Your task to perform on an android device: Empty the shopping cart on target. Add "bose quietcomfort 35" to the cart on target Image 0: 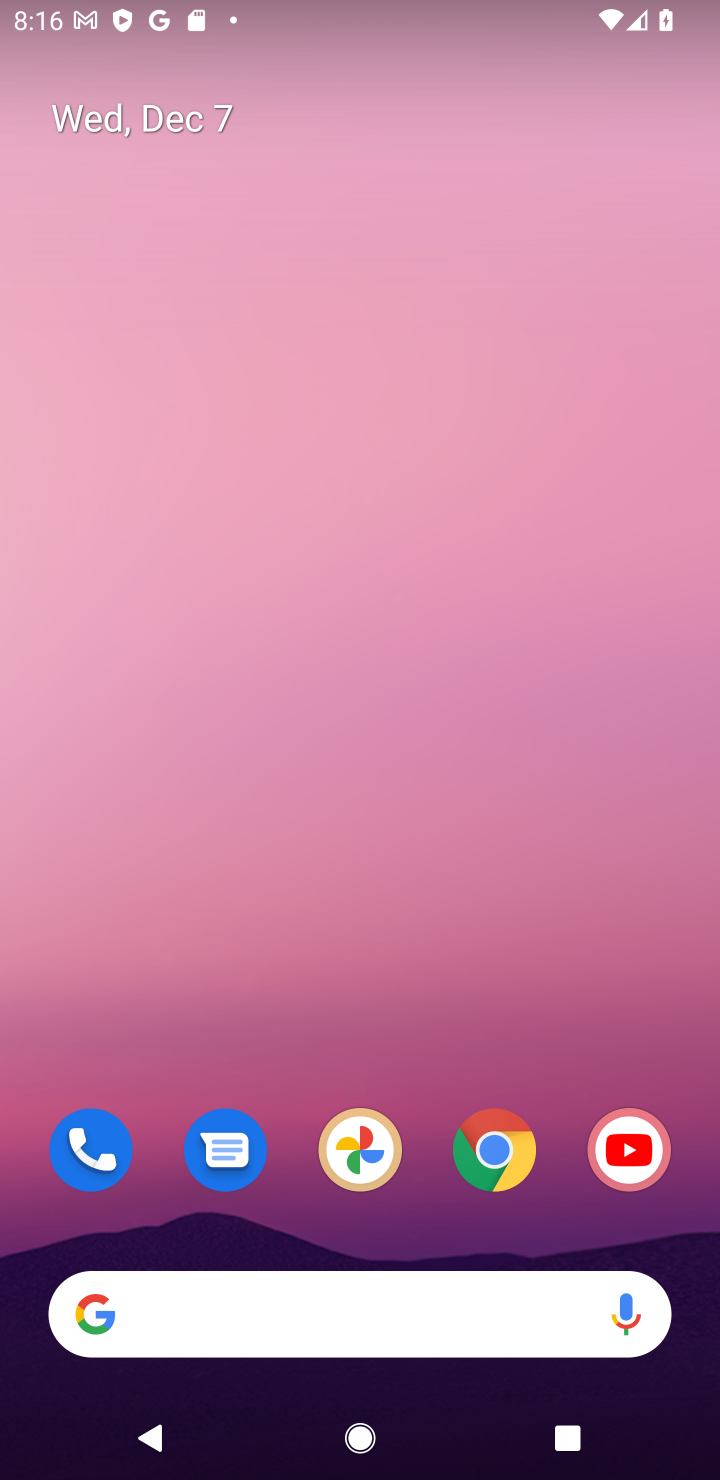
Step 0: click (502, 1148)
Your task to perform on an android device: Empty the shopping cart on target. Add "bose quietcomfort 35" to the cart on target Image 1: 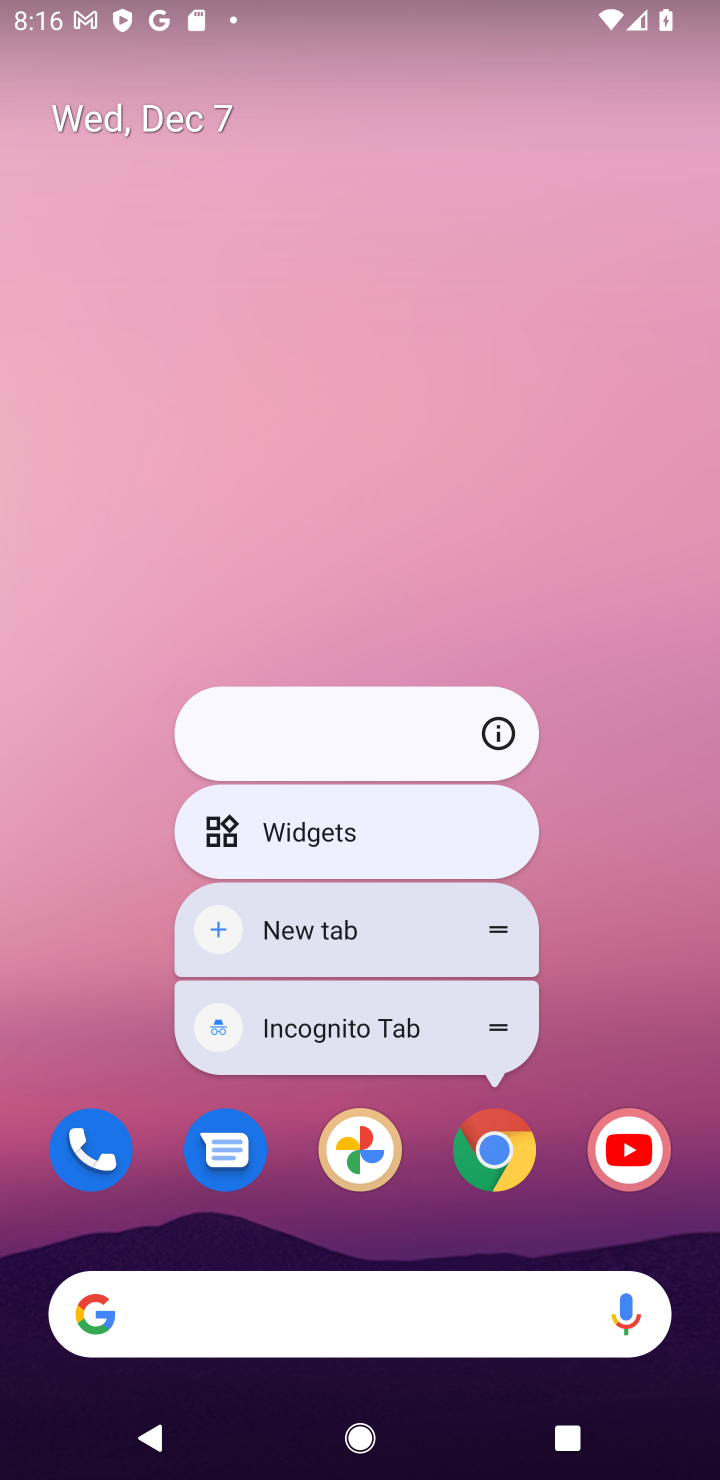
Step 1: click (502, 1148)
Your task to perform on an android device: Empty the shopping cart on target. Add "bose quietcomfort 35" to the cart on target Image 2: 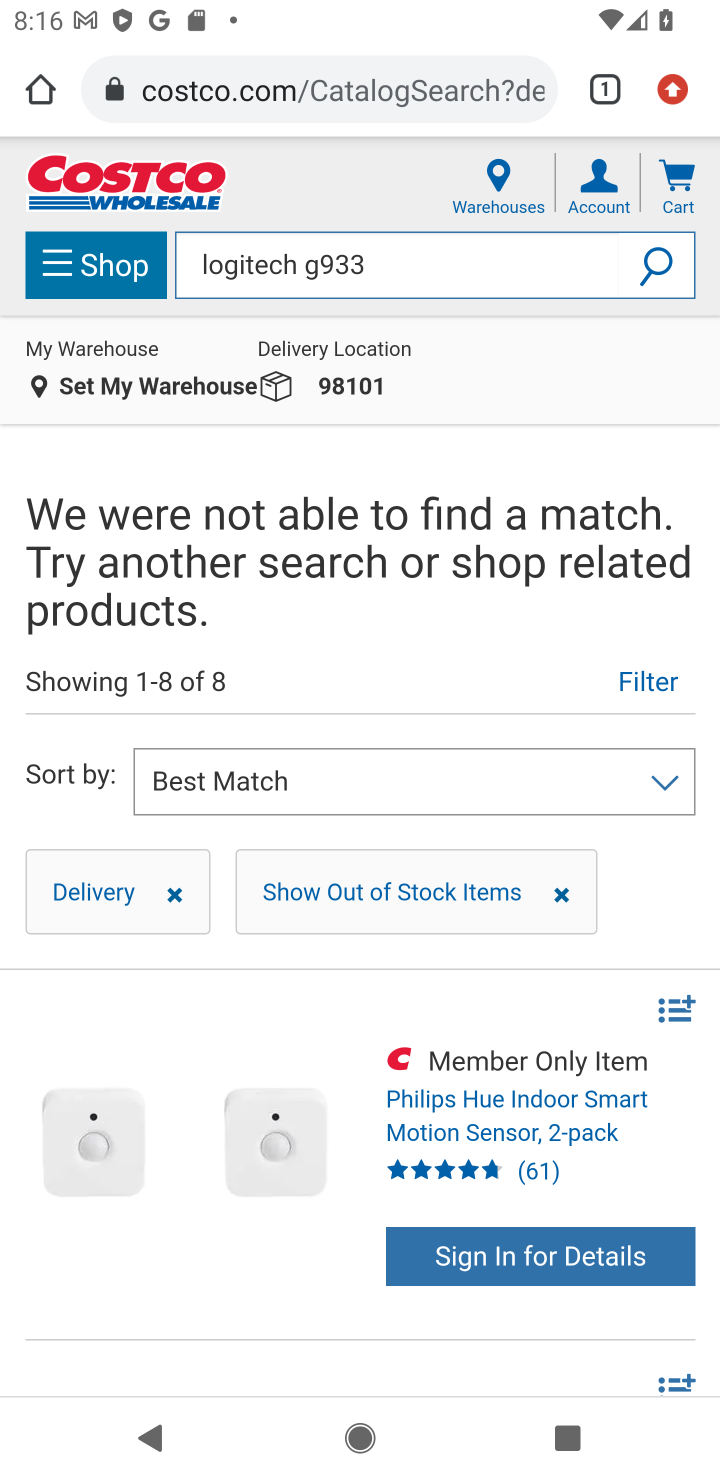
Step 2: click (369, 81)
Your task to perform on an android device: Empty the shopping cart on target. Add "bose quietcomfort 35" to the cart on target Image 3: 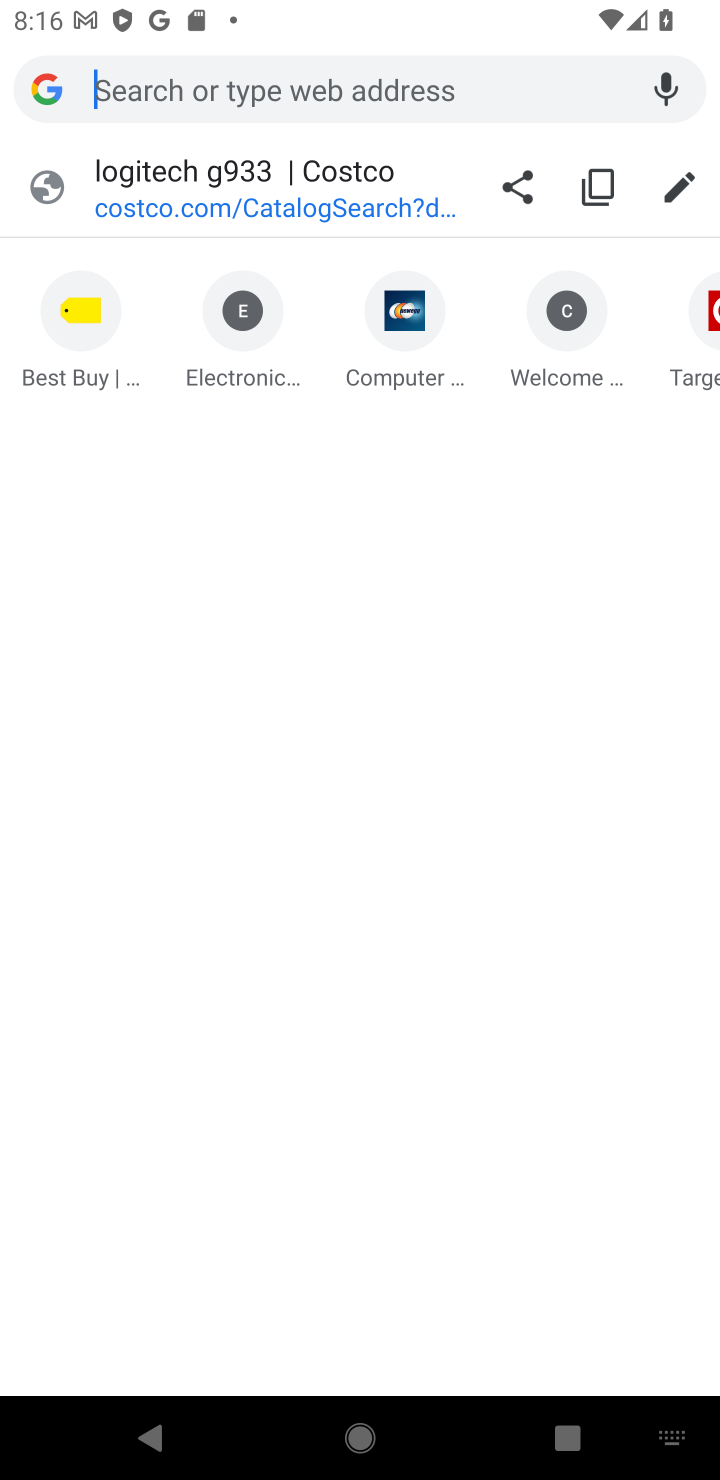
Step 3: type "target"
Your task to perform on an android device: Empty the shopping cart on target. Add "bose quietcomfort 35" to the cart on target Image 4: 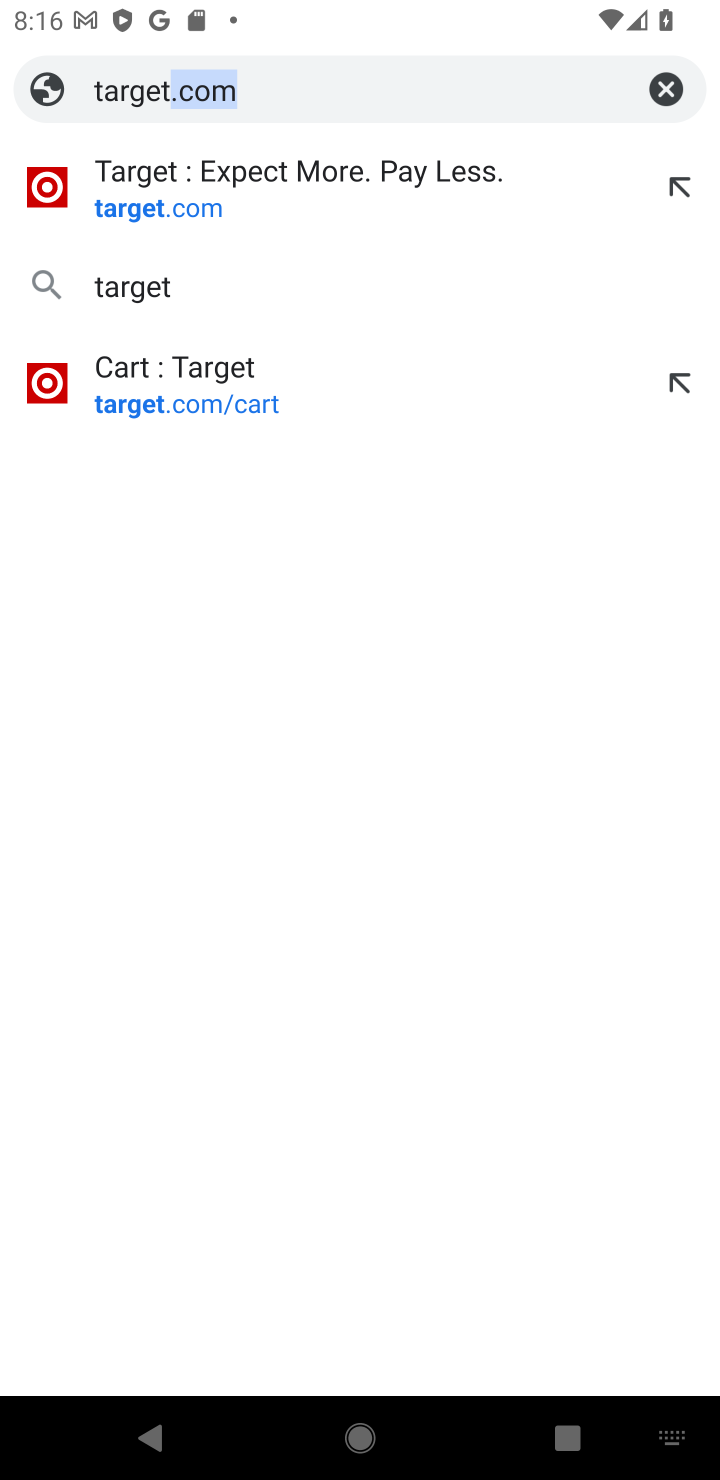
Step 4: click (486, 68)
Your task to perform on an android device: Empty the shopping cart on target. Add "bose quietcomfort 35" to the cart on target Image 5: 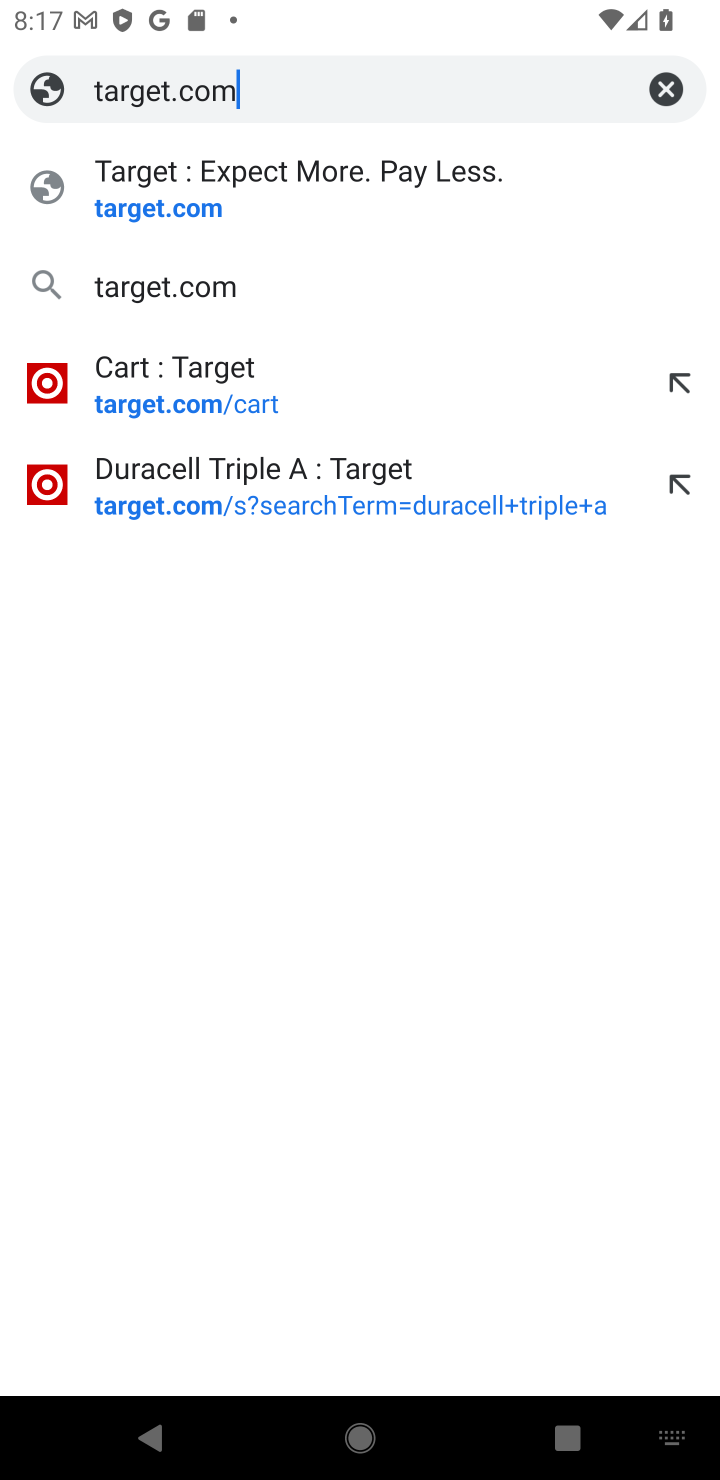
Step 5: click (223, 283)
Your task to perform on an android device: Empty the shopping cart on target. Add "bose quietcomfort 35" to the cart on target Image 6: 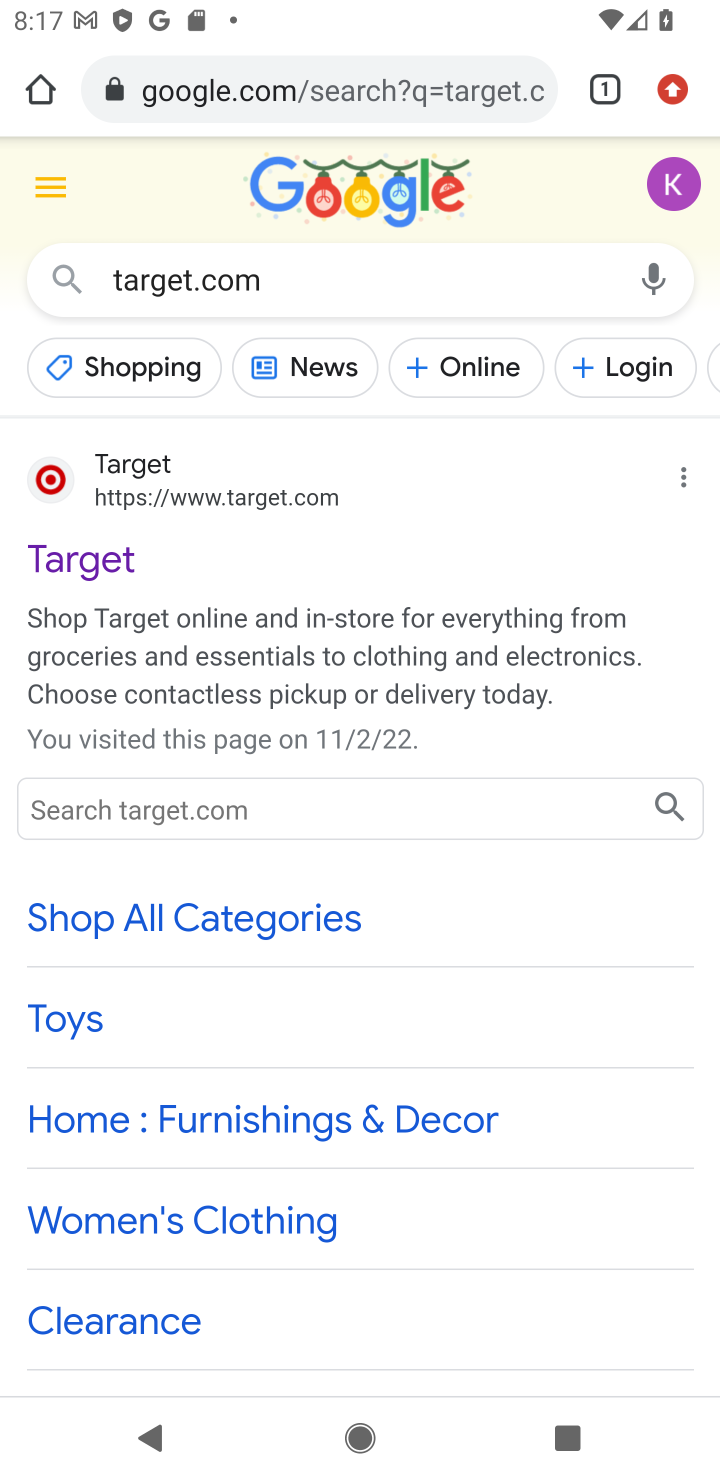
Step 6: click (302, 494)
Your task to perform on an android device: Empty the shopping cart on target. Add "bose quietcomfort 35" to the cart on target Image 7: 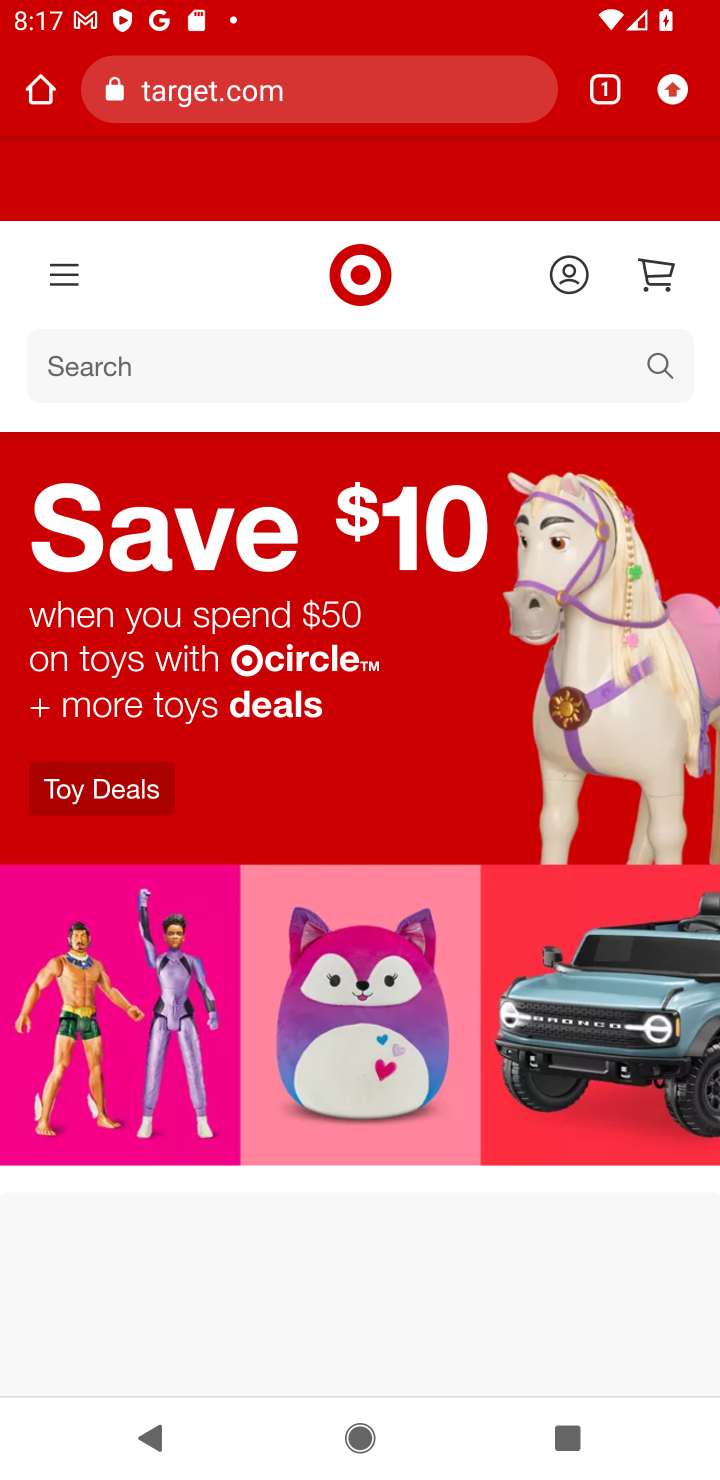
Step 7: click (651, 361)
Your task to perform on an android device: Empty the shopping cart on target. Add "bose quietcomfort 35" to the cart on target Image 8: 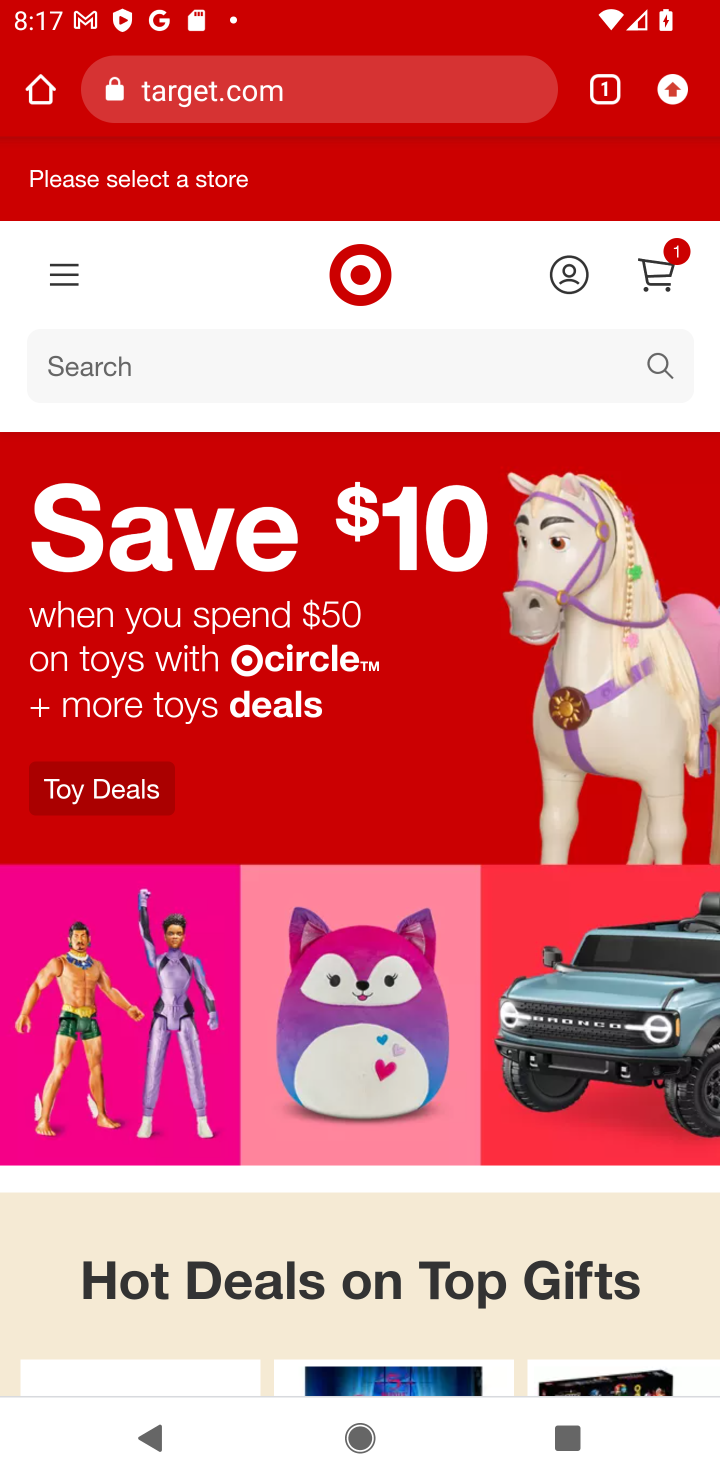
Step 8: click (660, 353)
Your task to perform on an android device: Empty the shopping cart on target. Add "bose quietcomfort 35" to the cart on target Image 9: 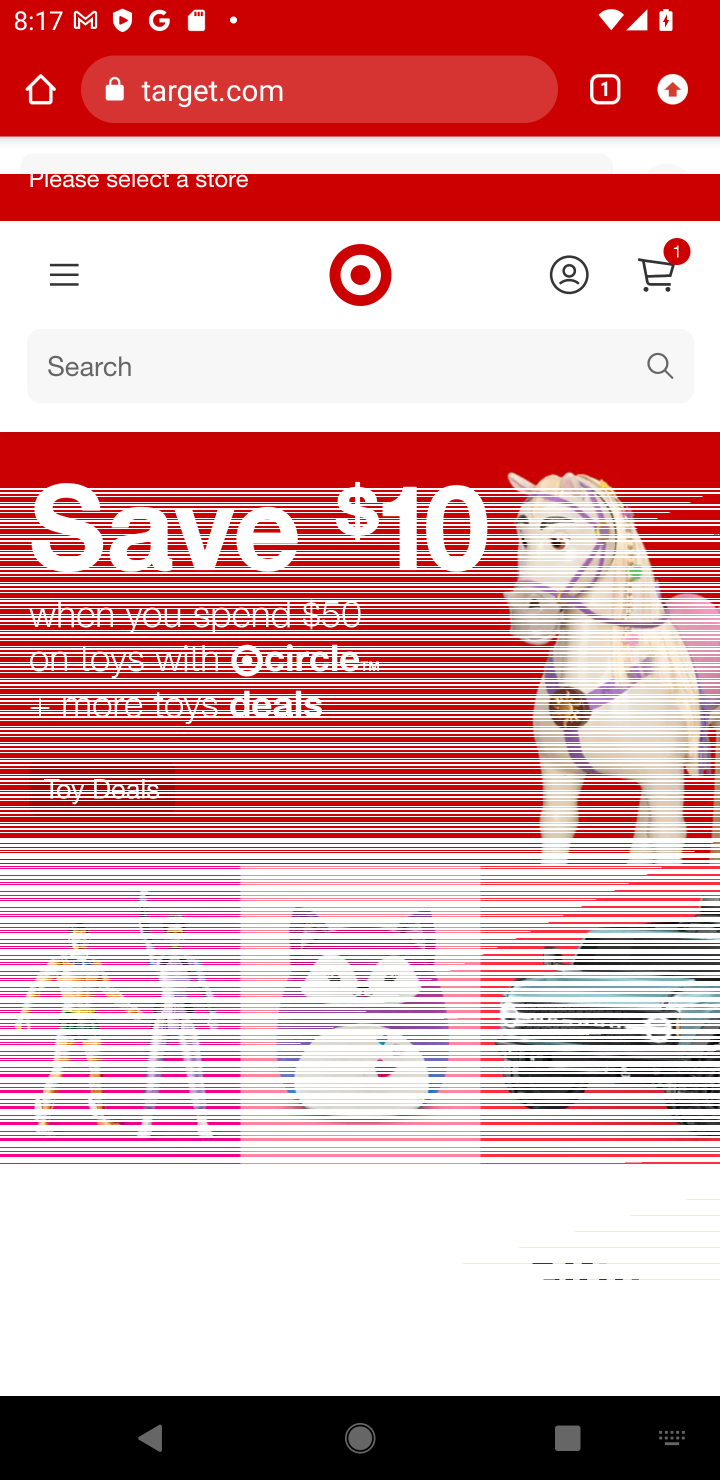
Step 9: type "bose quietcomfort 35"
Your task to perform on an android device: Empty the shopping cart on target. Add "bose quietcomfort 35" to the cart on target Image 10: 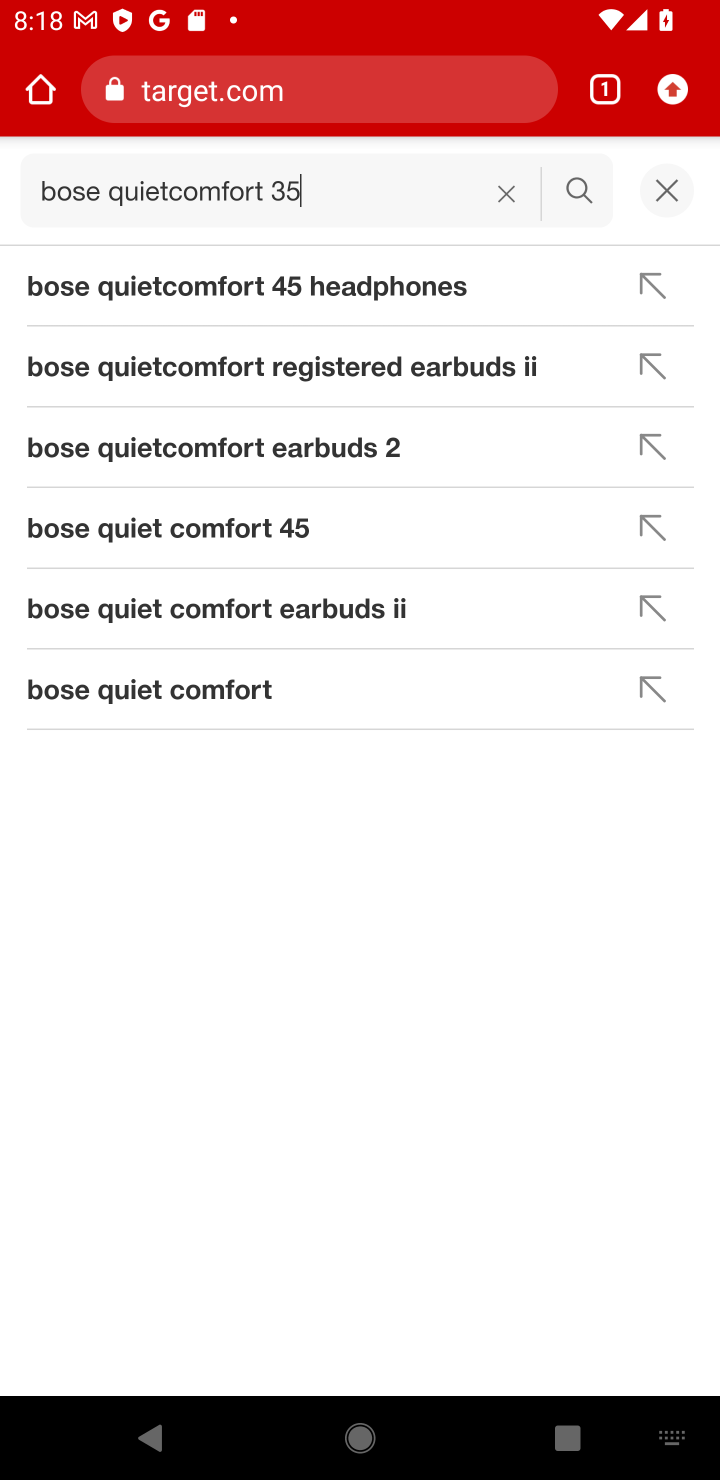
Step 10: click (655, 276)
Your task to perform on an android device: Empty the shopping cart on target. Add "bose quietcomfort 35" to the cart on target Image 11: 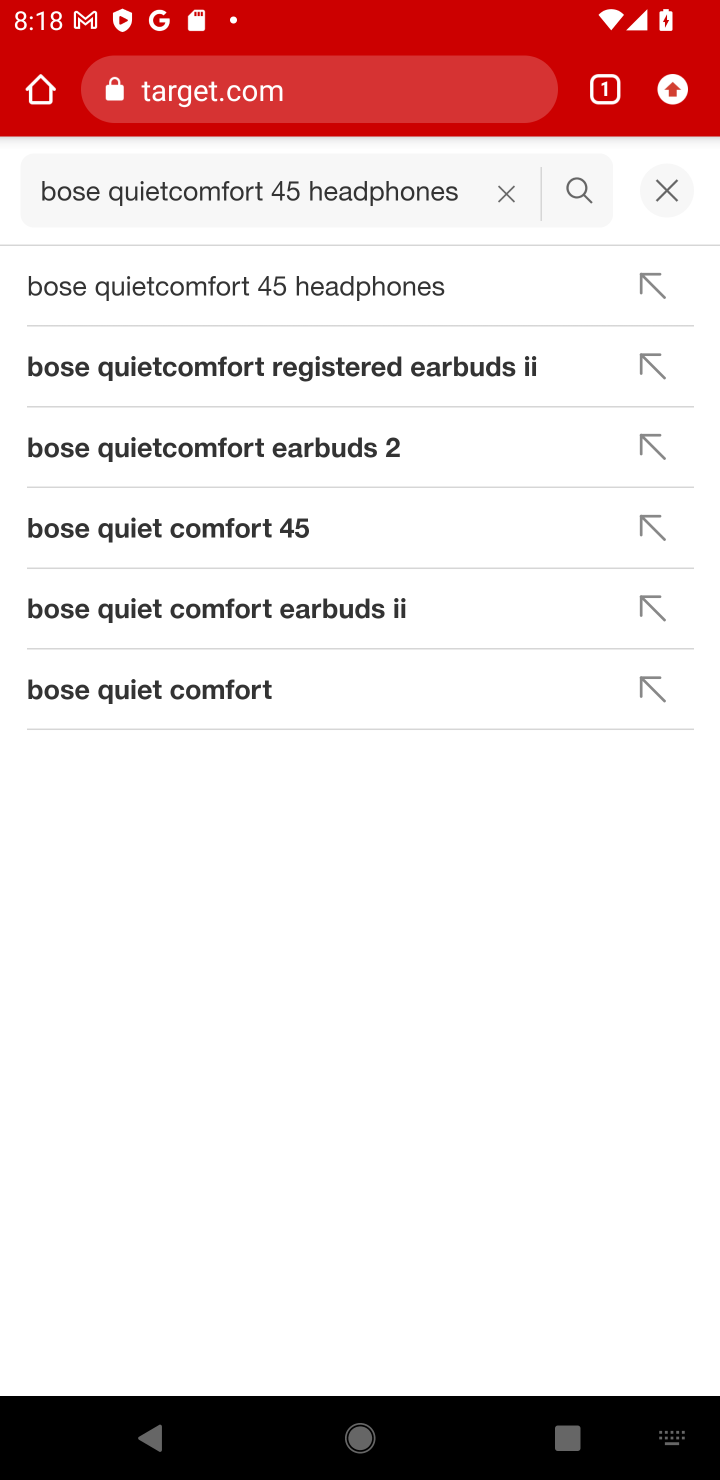
Step 11: click (655, 276)
Your task to perform on an android device: Empty the shopping cart on target. Add "bose quietcomfort 35" to the cart on target Image 12: 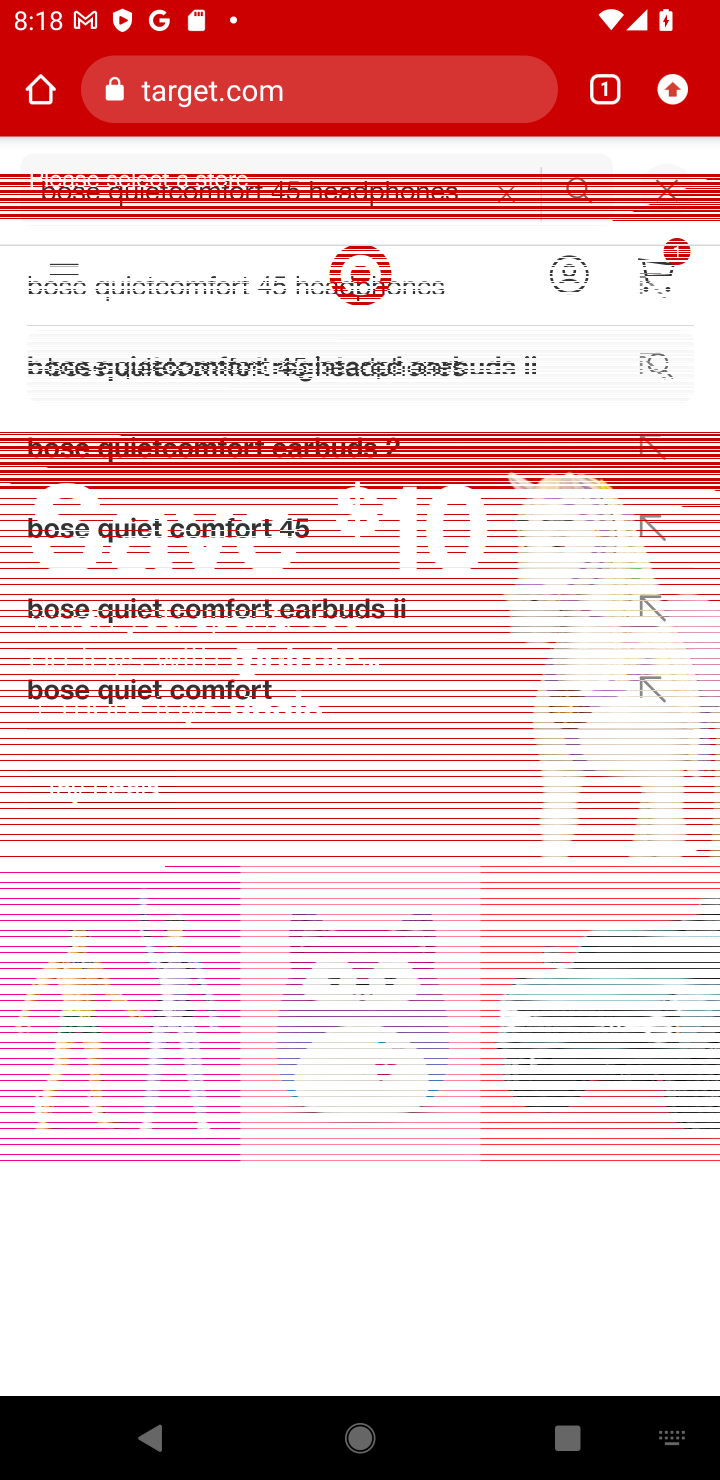
Step 12: click (665, 190)
Your task to perform on an android device: Empty the shopping cart on target. Add "bose quietcomfort 35" to the cart on target Image 13: 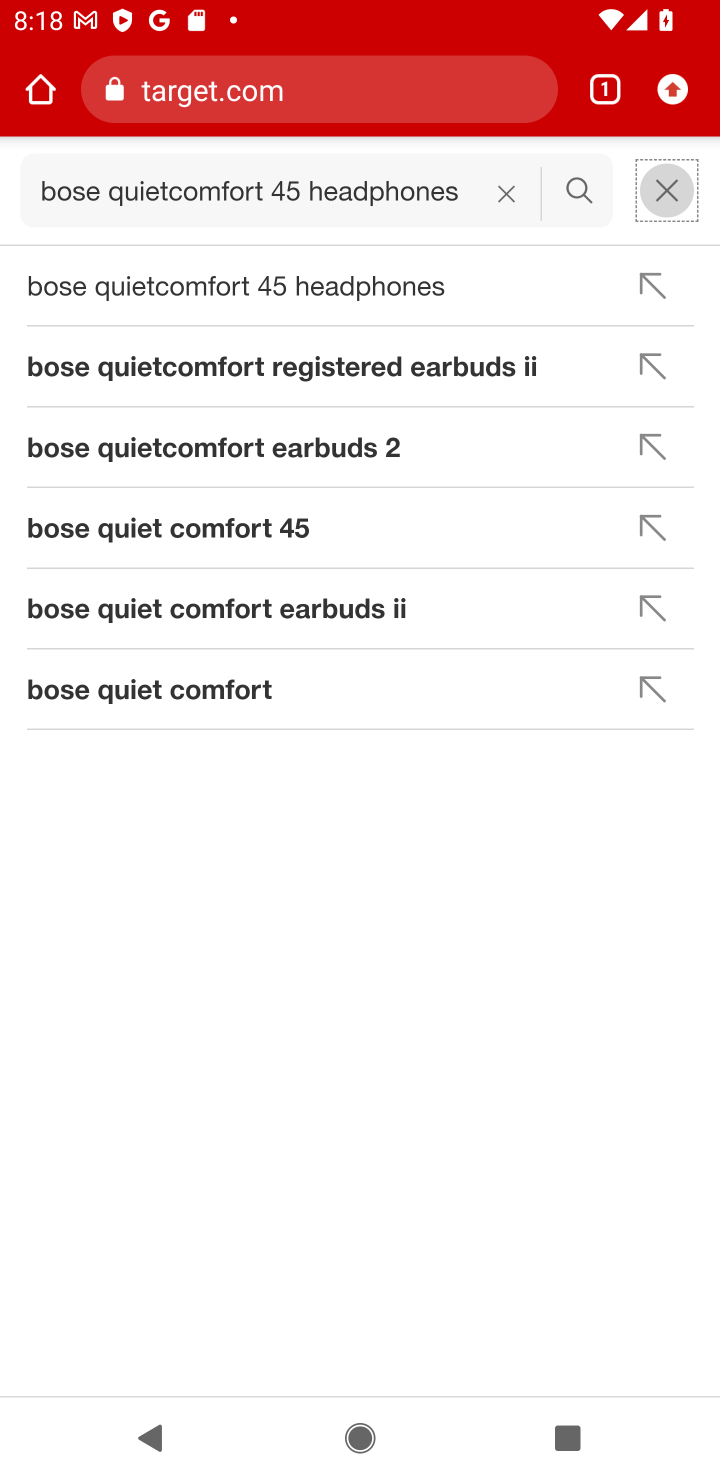
Step 13: click (675, 190)
Your task to perform on an android device: Empty the shopping cart on target. Add "bose quietcomfort 35" to the cart on target Image 14: 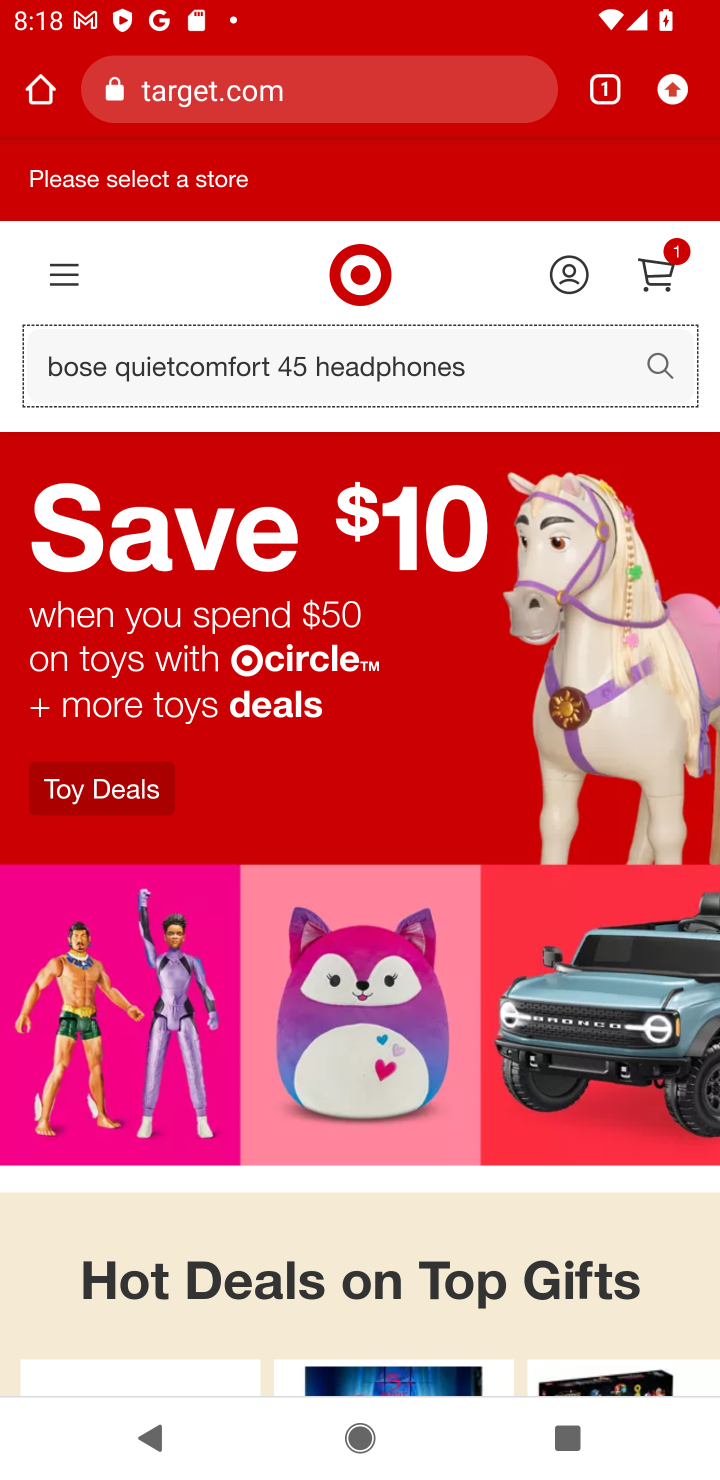
Step 14: click (662, 275)
Your task to perform on an android device: Empty the shopping cart on target. Add "bose quietcomfort 35" to the cart on target Image 15: 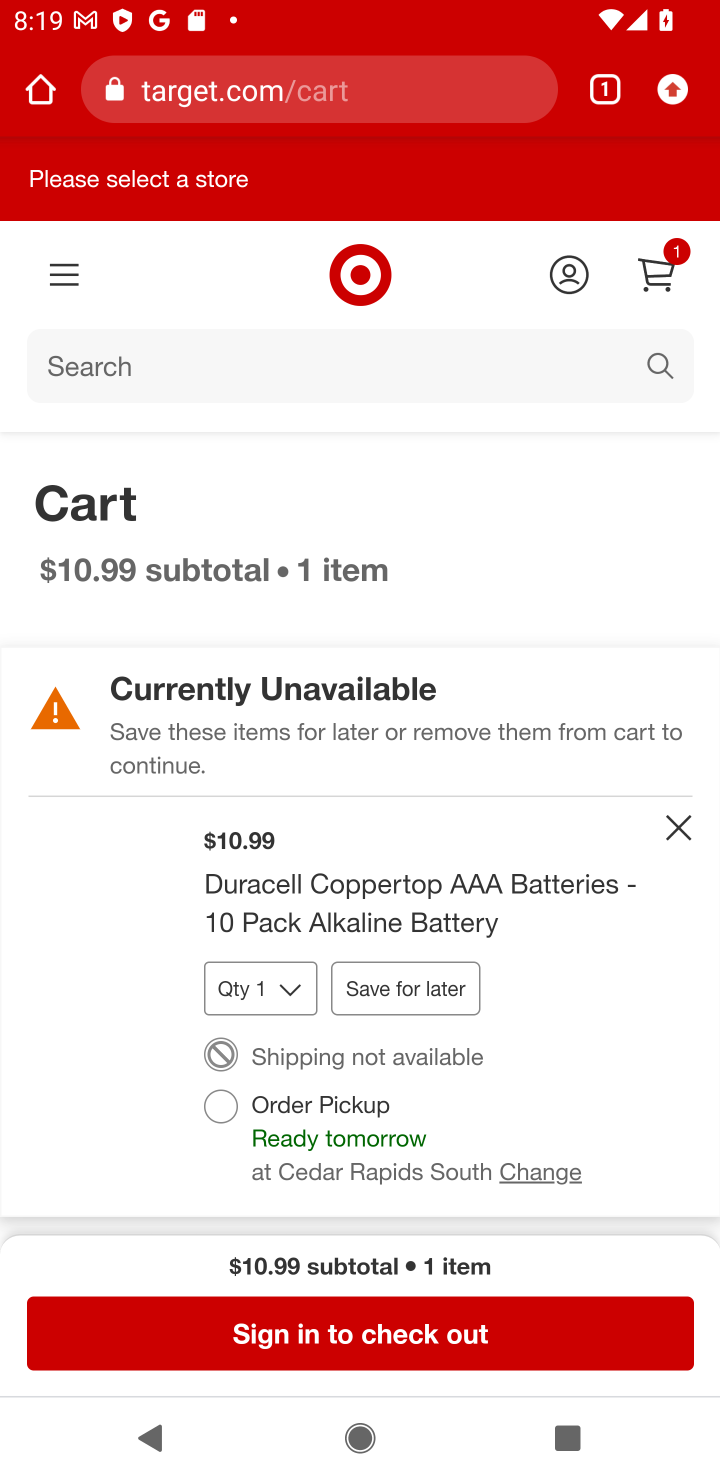
Step 15: drag from (362, 1080) to (369, 695)
Your task to perform on an android device: Empty the shopping cart on target. Add "bose quietcomfort 35" to the cart on target Image 16: 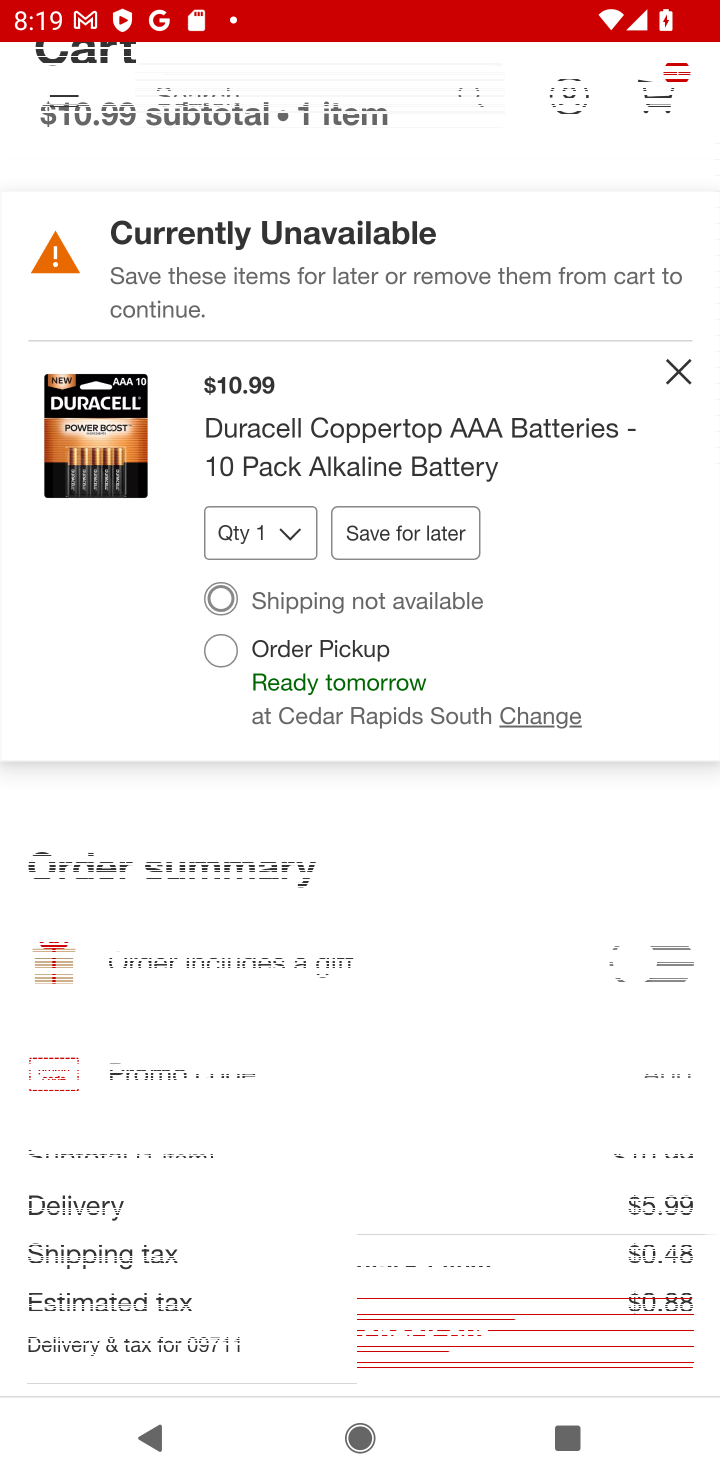
Step 16: drag from (401, 982) to (443, 704)
Your task to perform on an android device: Empty the shopping cart on target. Add "bose quietcomfort 35" to the cart on target Image 17: 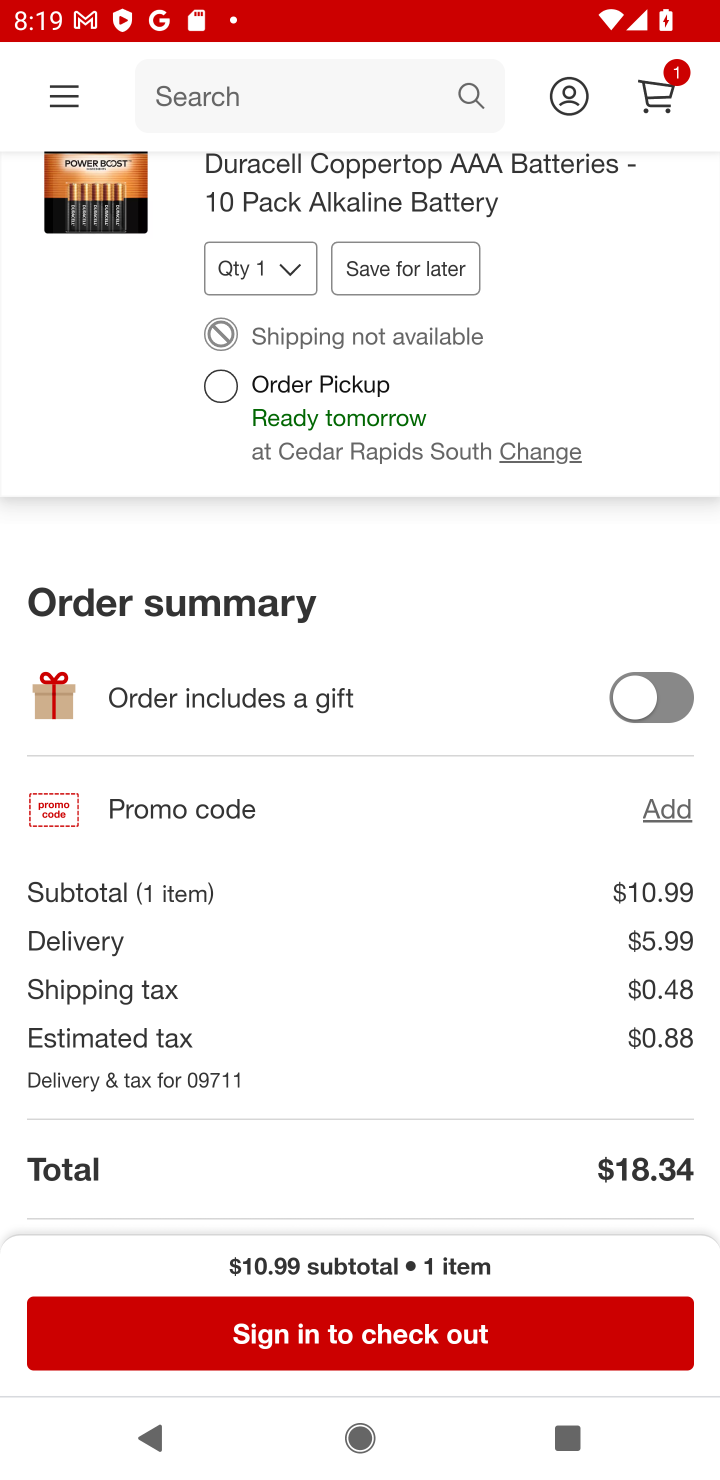
Step 17: drag from (522, 280) to (443, 586)
Your task to perform on an android device: Empty the shopping cart on target. Add "bose quietcomfort 35" to the cart on target Image 18: 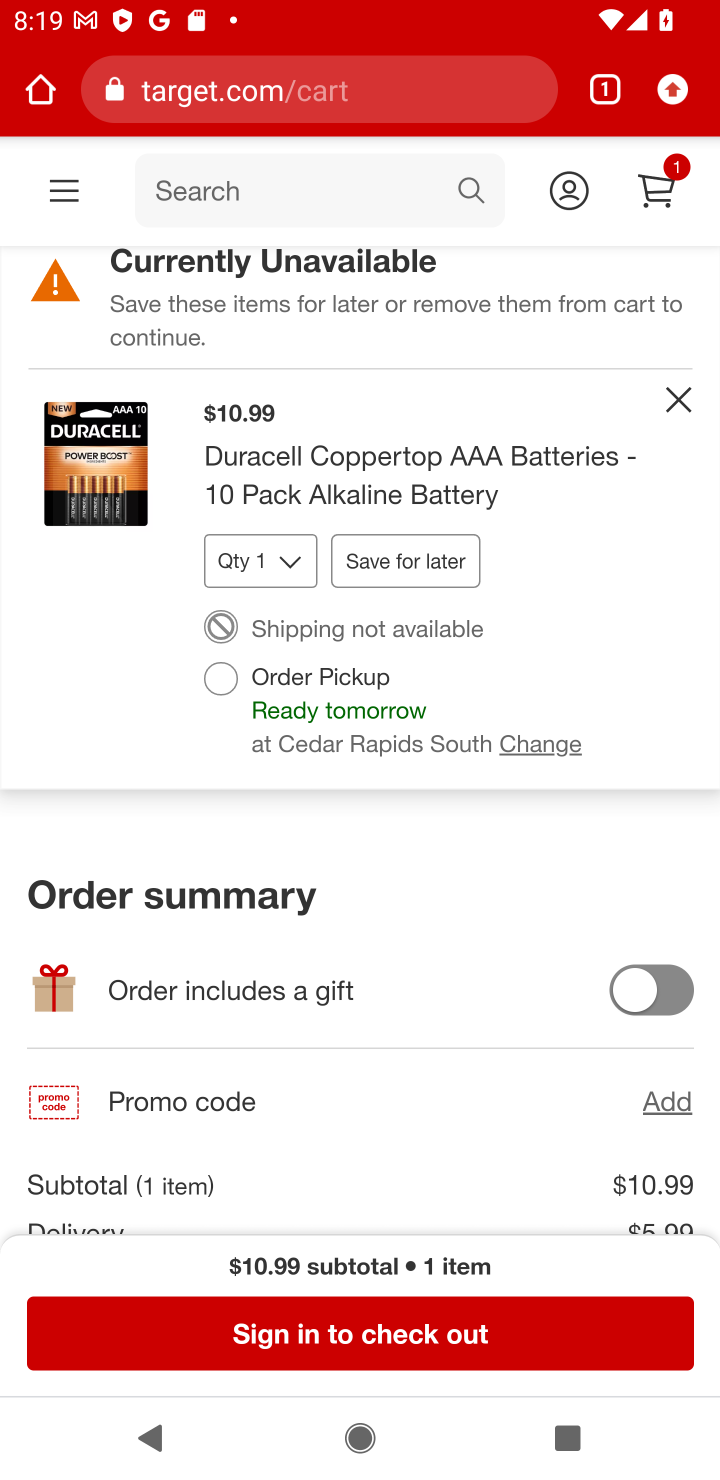
Step 18: click (678, 400)
Your task to perform on an android device: Empty the shopping cart on target. Add "bose quietcomfort 35" to the cart on target Image 19: 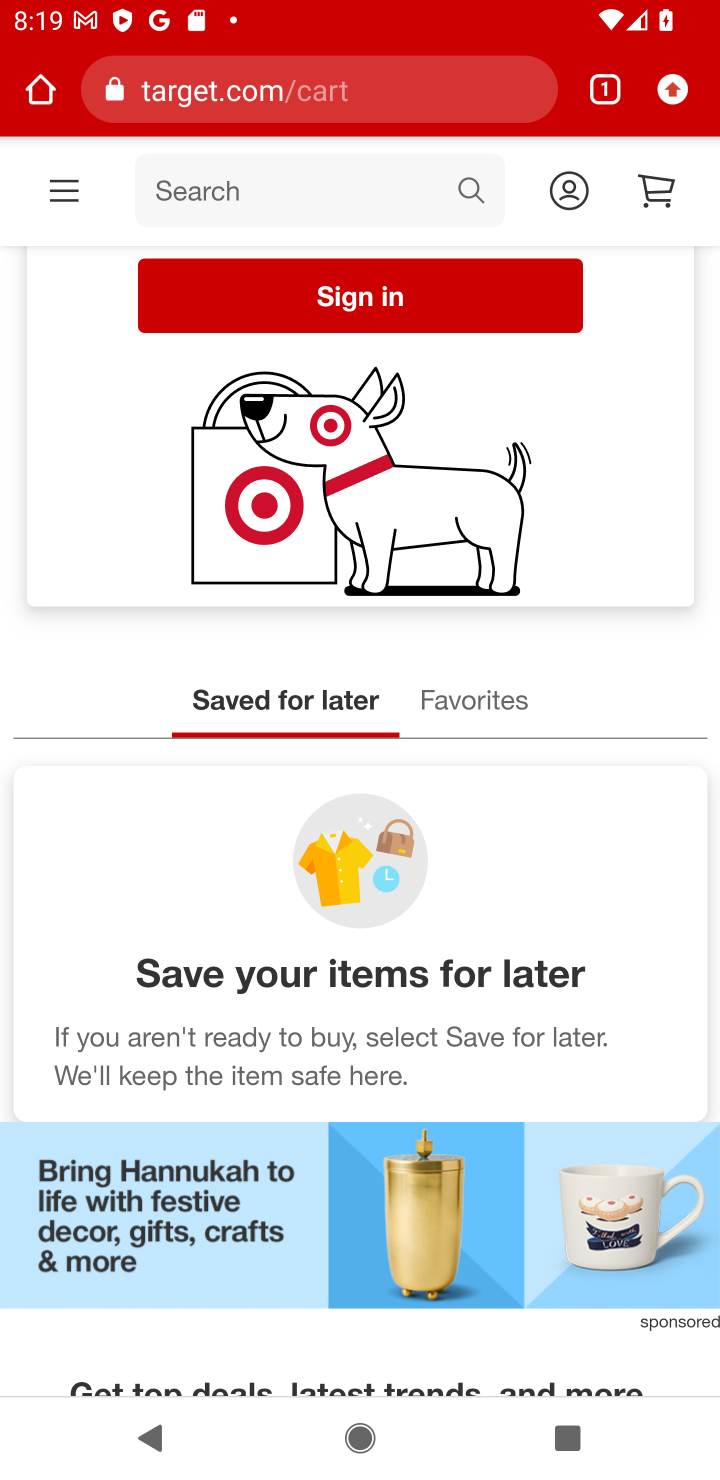
Step 19: click (319, 181)
Your task to perform on an android device: Empty the shopping cart on target. Add "bose quietcomfort 35" to the cart on target Image 20: 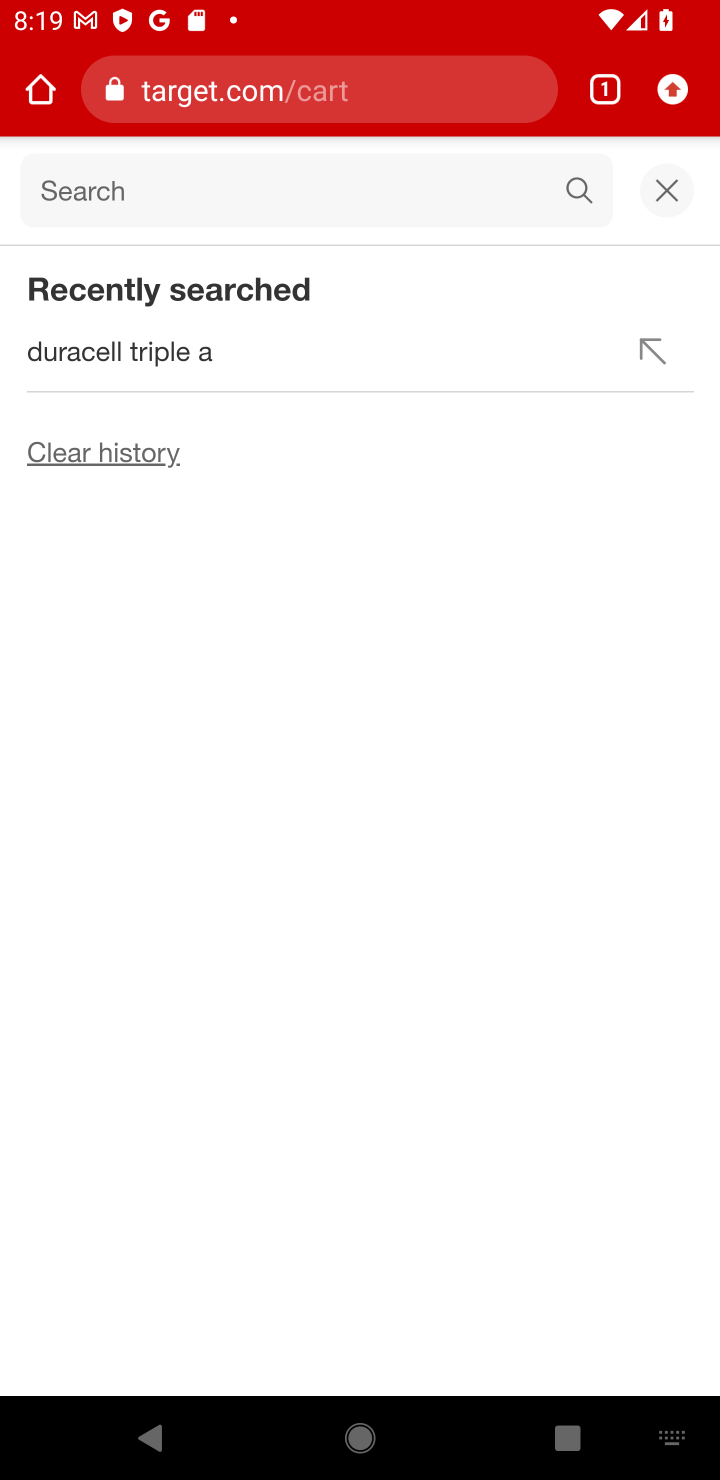
Step 20: type "bose quietcomfort 35"
Your task to perform on an android device: Empty the shopping cart on target. Add "bose quietcomfort 35" to the cart on target Image 21: 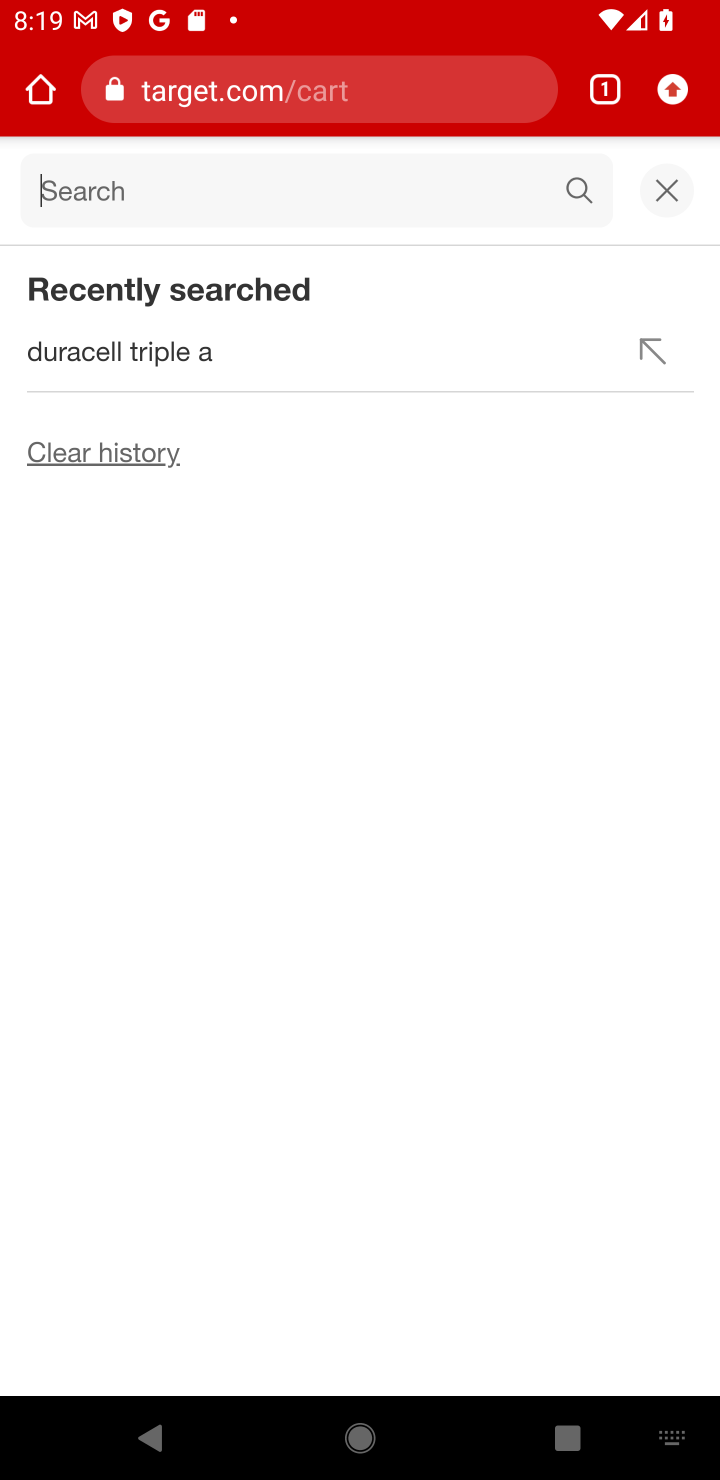
Step 21: press enter
Your task to perform on an android device: Empty the shopping cart on target. Add "bose quietcomfort 35" to the cart on target Image 22: 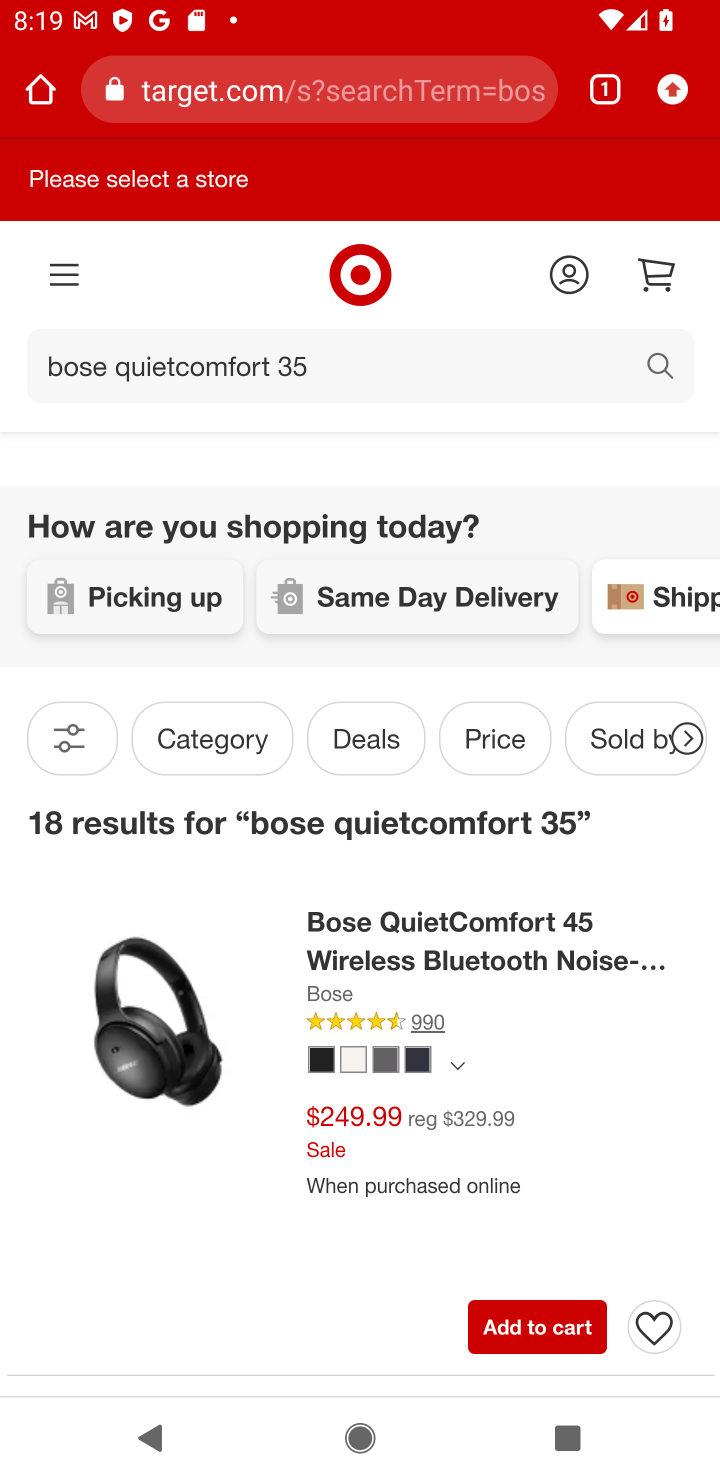
Step 22: click (494, 946)
Your task to perform on an android device: Empty the shopping cart on target. Add "bose quietcomfort 35" to the cart on target Image 23: 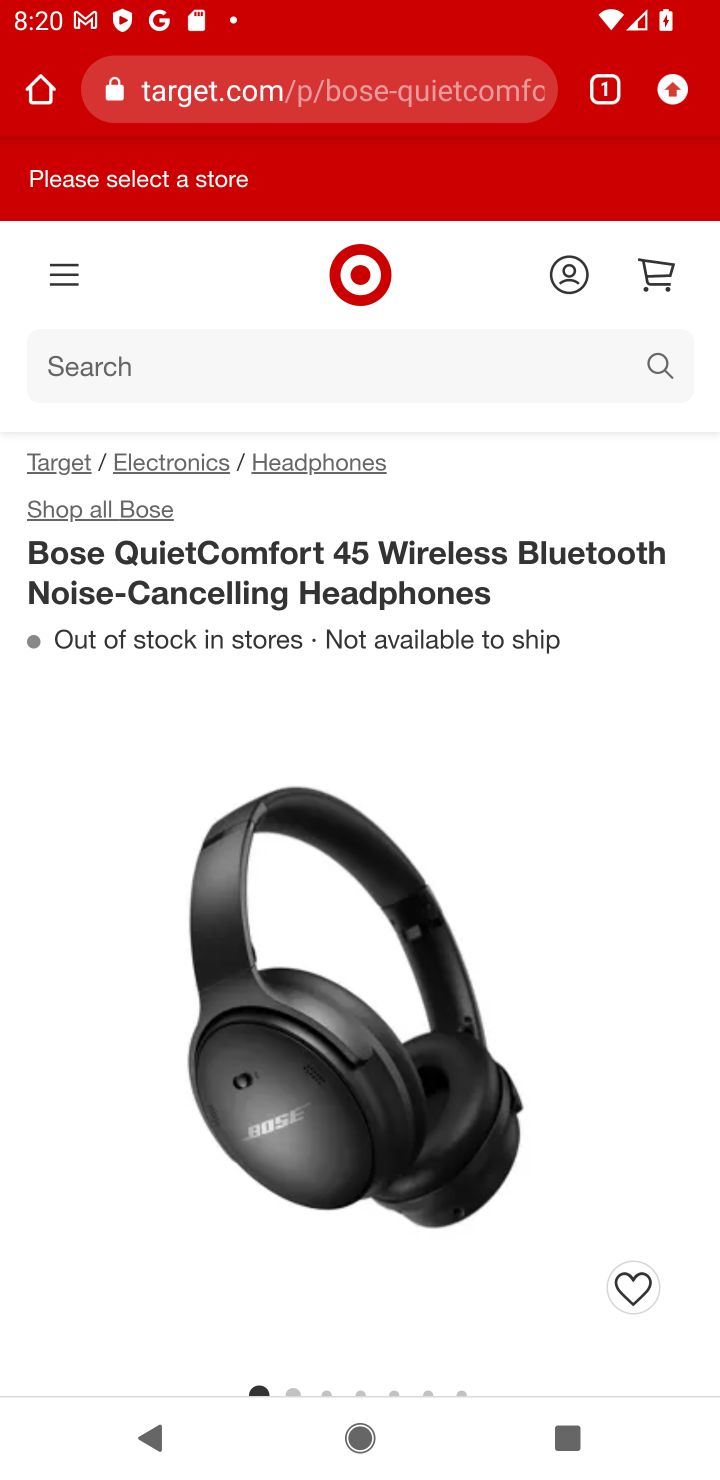
Step 23: drag from (485, 900) to (584, 418)
Your task to perform on an android device: Empty the shopping cart on target. Add "bose quietcomfort 35" to the cart on target Image 24: 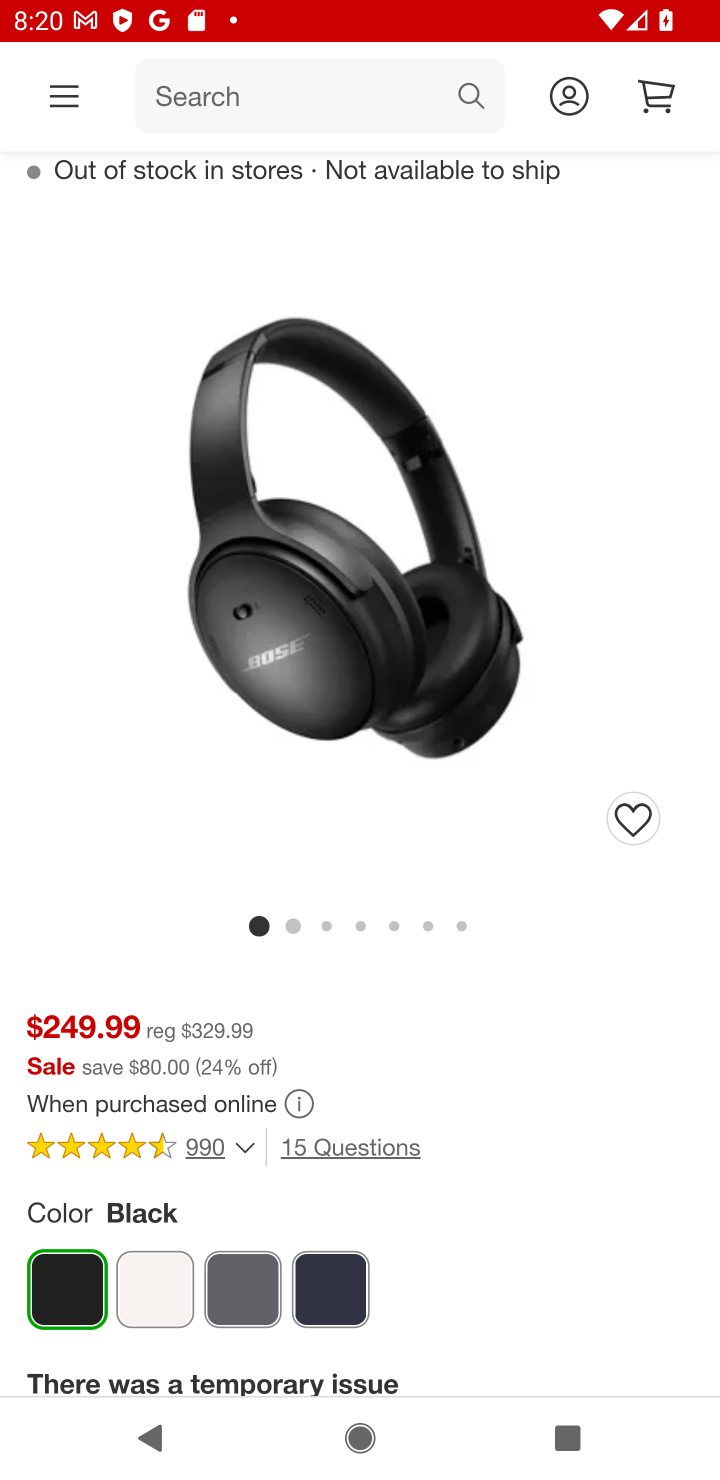
Step 24: click (497, 486)
Your task to perform on an android device: Empty the shopping cart on target. Add "bose quietcomfort 35" to the cart on target Image 25: 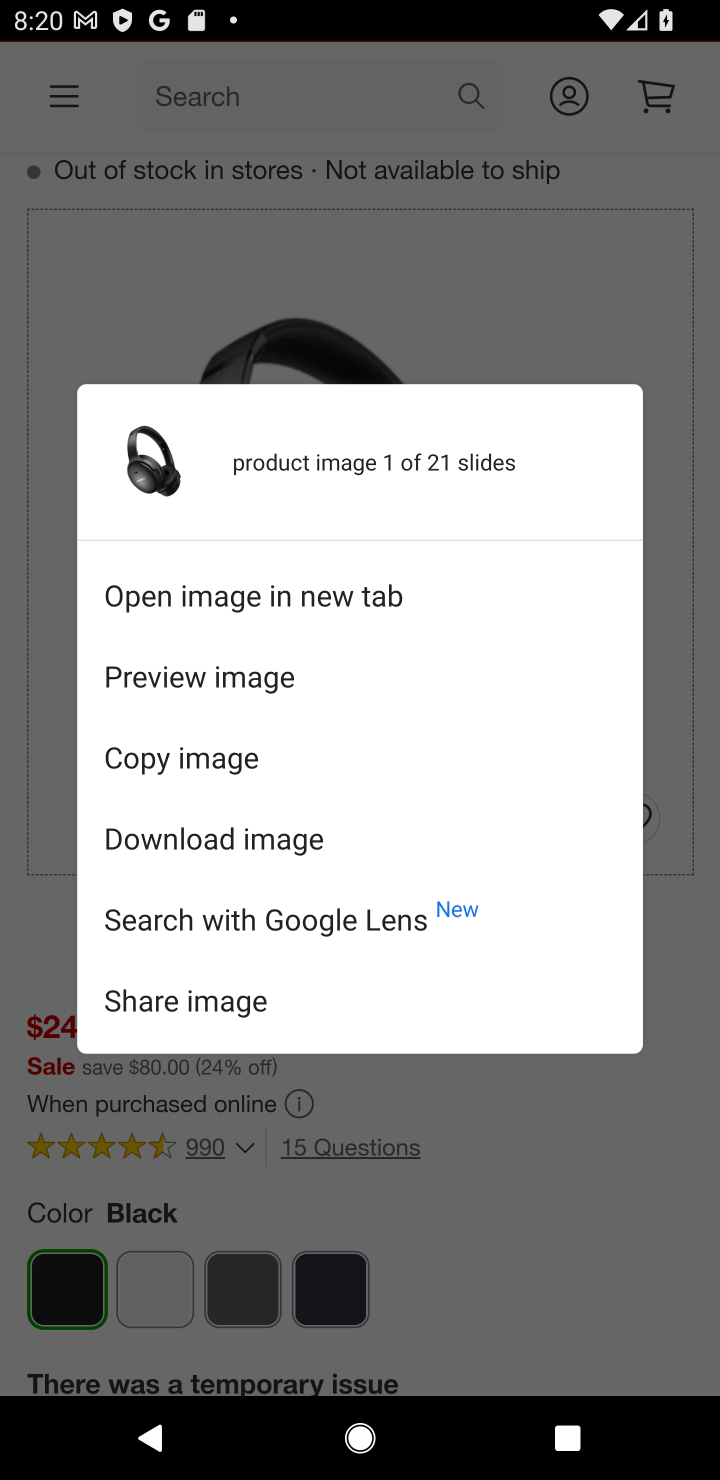
Step 25: click (419, 1203)
Your task to perform on an android device: Empty the shopping cart on target. Add "bose quietcomfort 35" to the cart on target Image 26: 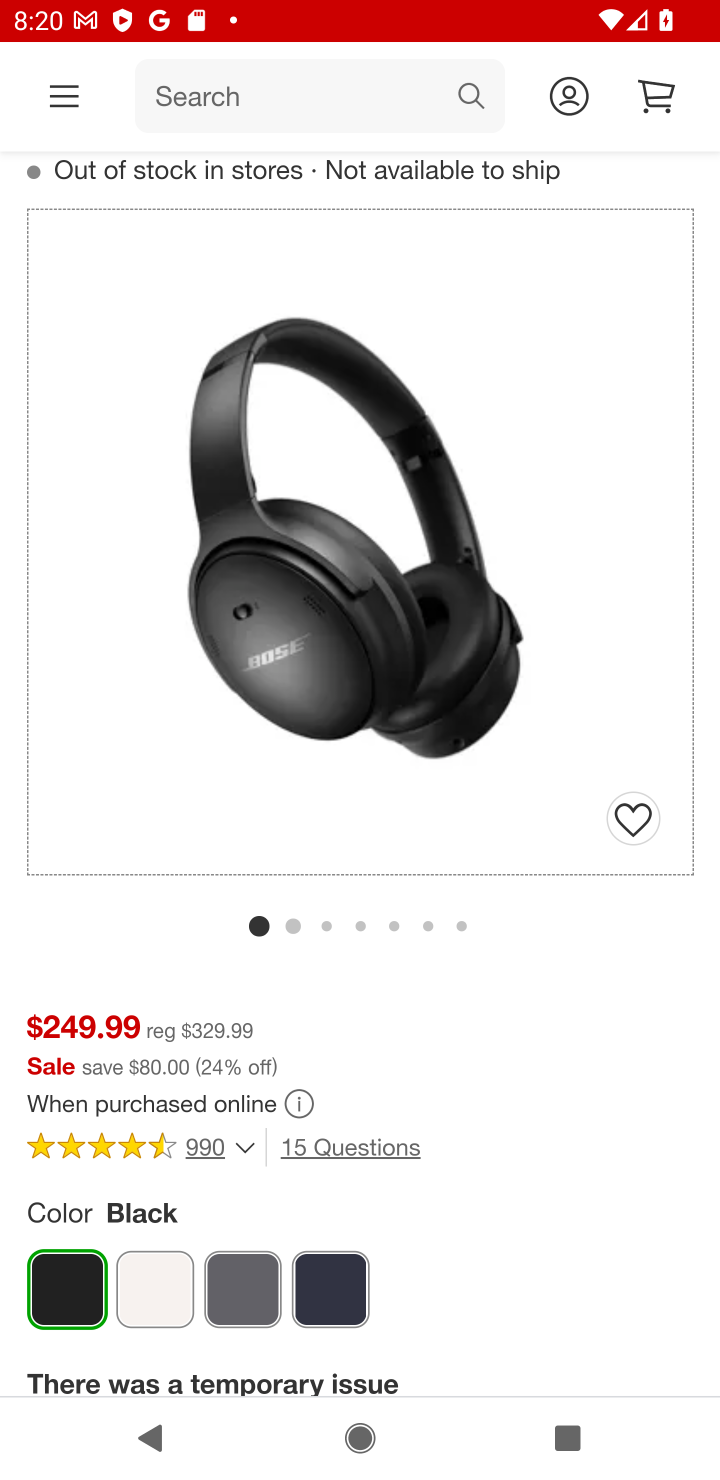
Step 26: drag from (491, 1203) to (527, 412)
Your task to perform on an android device: Empty the shopping cart on target. Add "bose quietcomfort 35" to the cart on target Image 27: 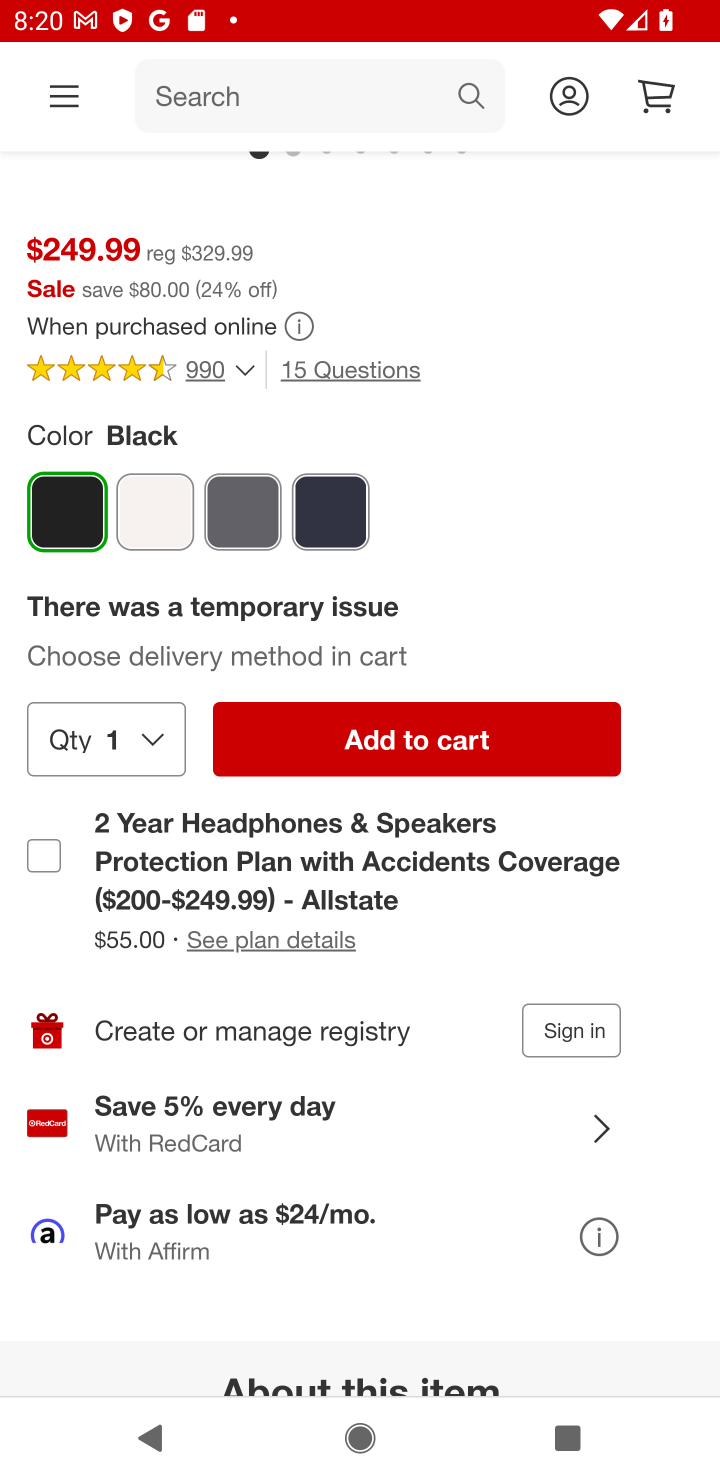
Step 27: click (412, 752)
Your task to perform on an android device: Empty the shopping cart on target. Add "bose quietcomfort 35" to the cart on target Image 28: 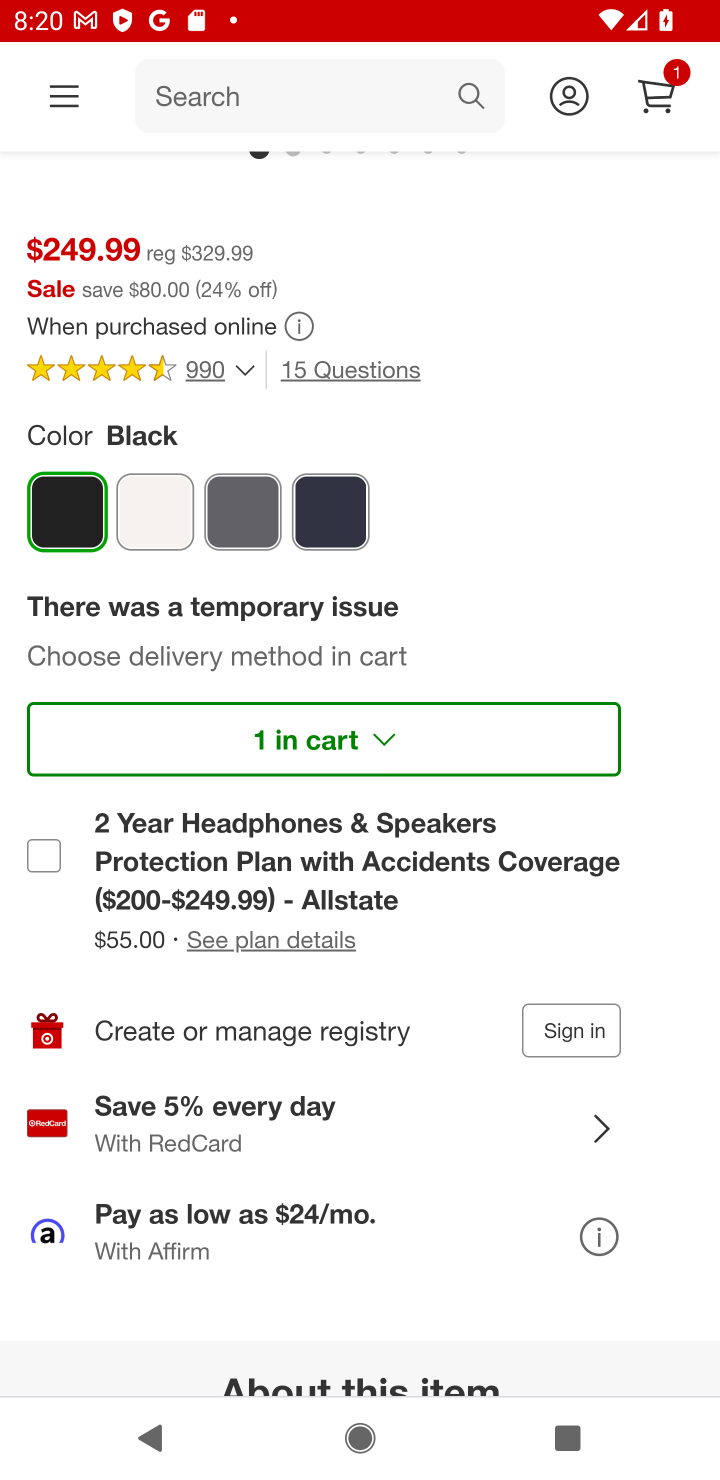
Step 28: task complete